Your task to perform on an android device: open a new tab in the chrome app Image 0: 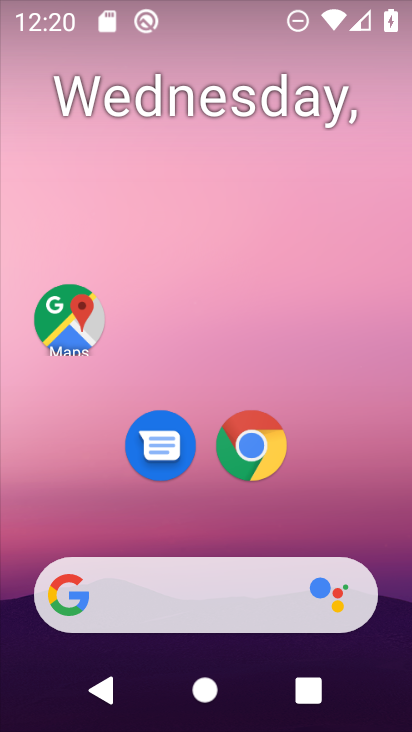
Step 0: drag from (381, 617) to (193, 42)
Your task to perform on an android device: open a new tab in the chrome app Image 1: 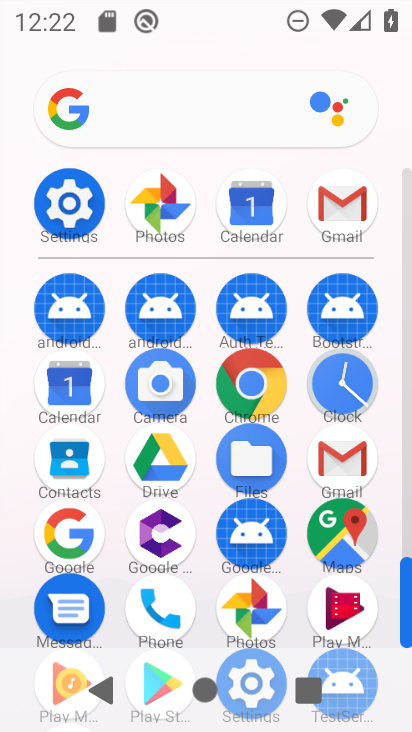
Step 1: click (251, 389)
Your task to perform on an android device: open a new tab in the chrome app Image 2: 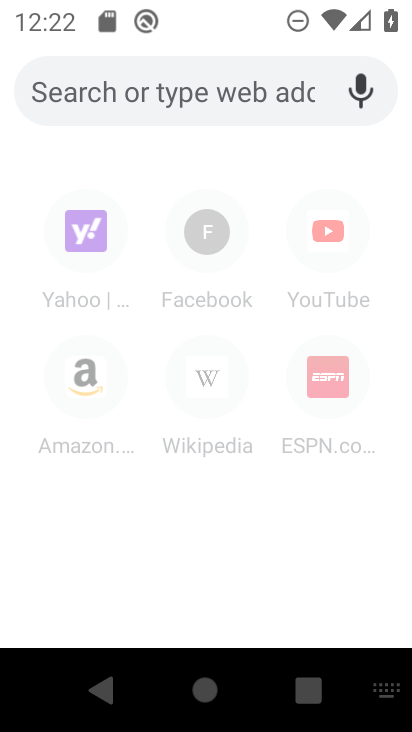
Step 2: press back button
Your task to perform on an android device: open a new tab in the chrome app Image 3: 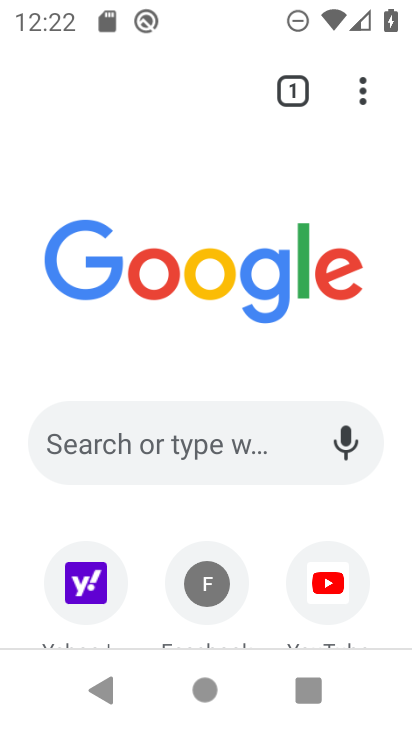
Step 3: click (367, 82)
Your task to perform on an android device: open a new tab in the chrome app Image 4: 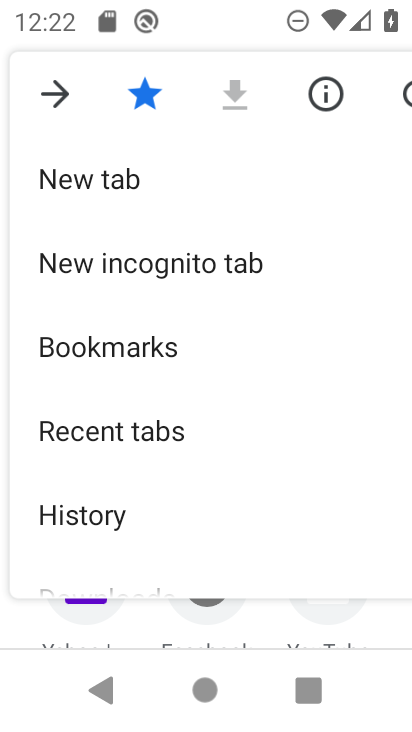
Step 4: click (164, 197)
Your task to perform on an android device: open a new tab in the chrome app Image 5: 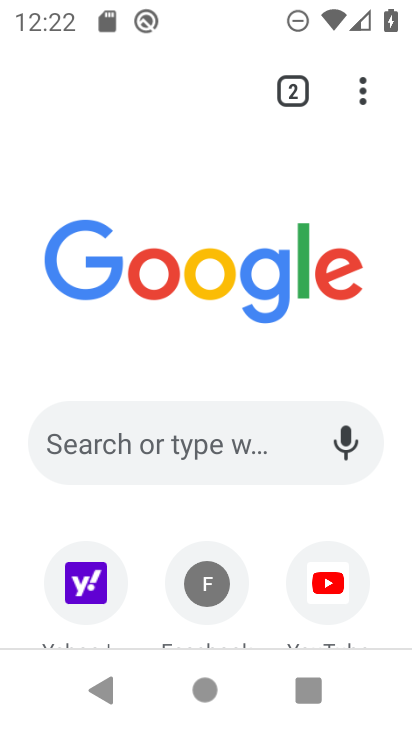
Step 5: task complete